Your task to perform on an android device: delete browsing data in the chrome app Image 0: 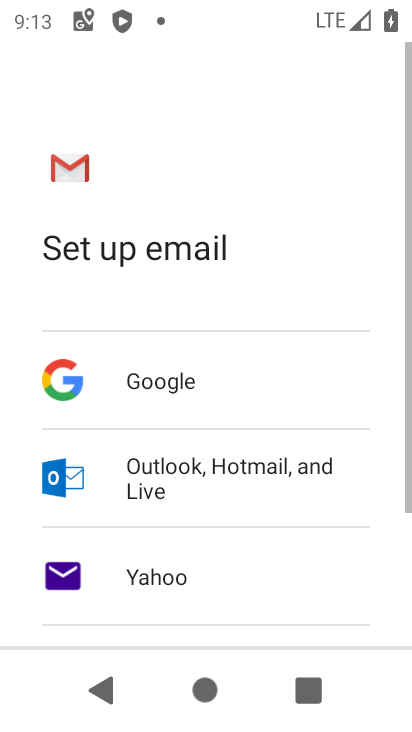
Step 0: press home button
Your task to perform on an android device: delete browsing data in the chrome app Image 1: 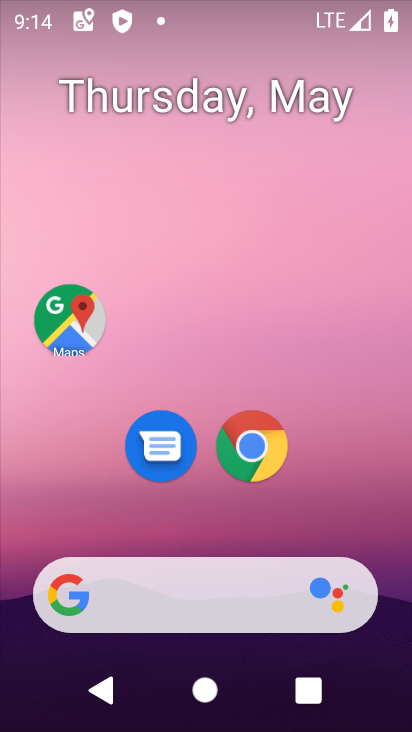
Step 1: click (257, 444)
Your task to perform on an android device: delete browsing data in the chrome app Image 2: 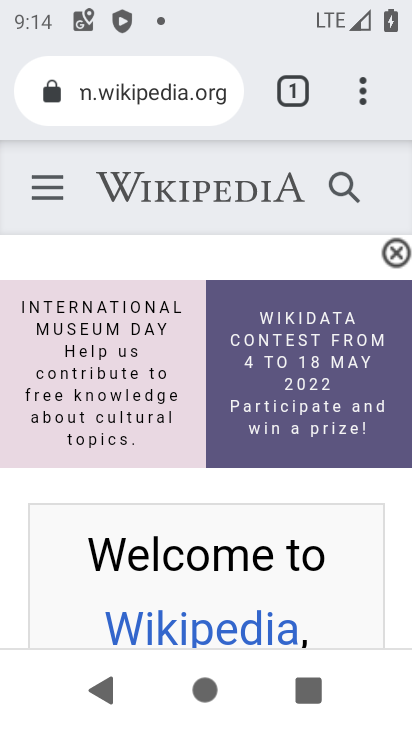
Step 2: click (362, 100)
Your task to perform on an android device: delete browsing data in the chrome app Image 3: 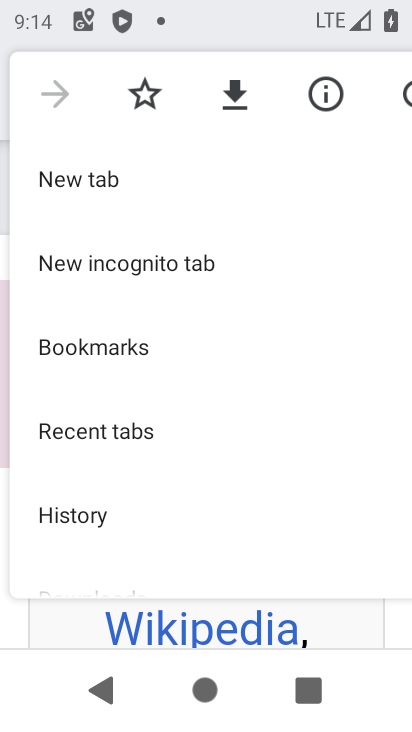
Step 3: drag from (202, 552) to (239, 257)
Your task to perform on an android device: delete browsing data in the chrome app Image 4: 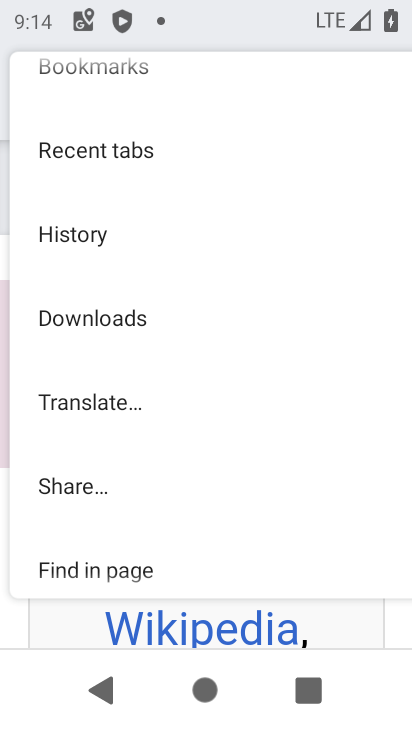
Step 4: click (84, 229)
Your task to perform on an android device: delete browsing data in the chrome app Image 5: 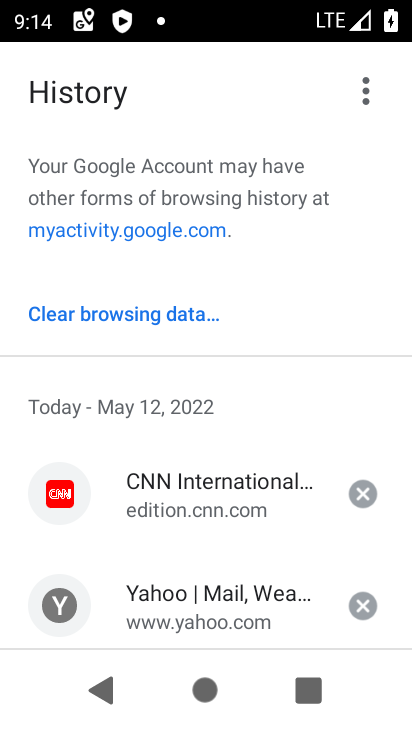
Step 5: click (123, 302)
Your task to perform on an android device: delete browsing data in the chrome app Image 6: 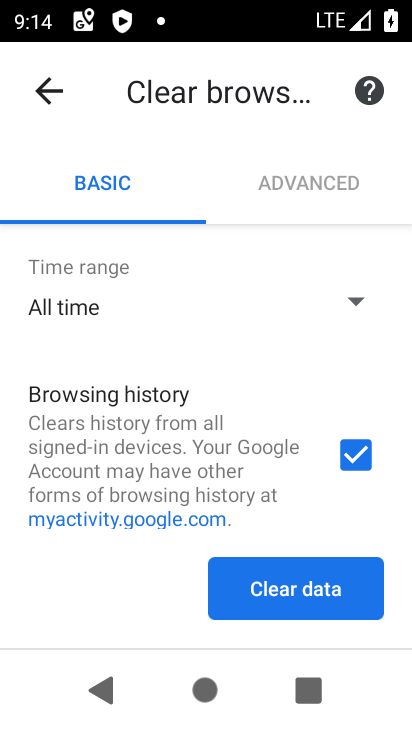
Step 6: drag from (295, 530) to (291, 190)
Your task to perform on an android device: delete browsing data in the chrome app Image 7: 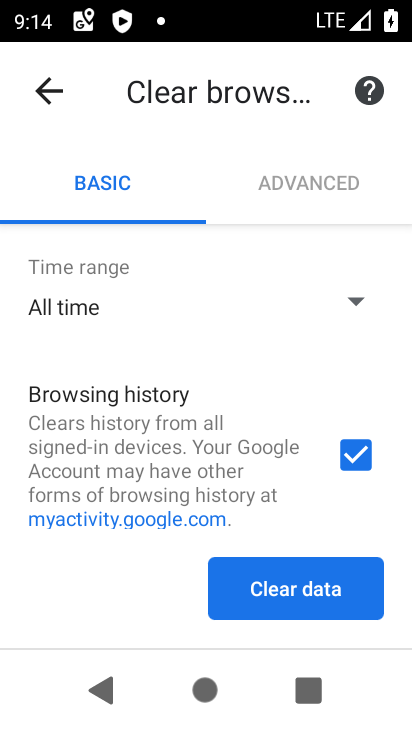
Step 7: drag from (216, 489) to (247, 108)
Your task to perform on an android device: delete browsing data in the chrome app Image 8: 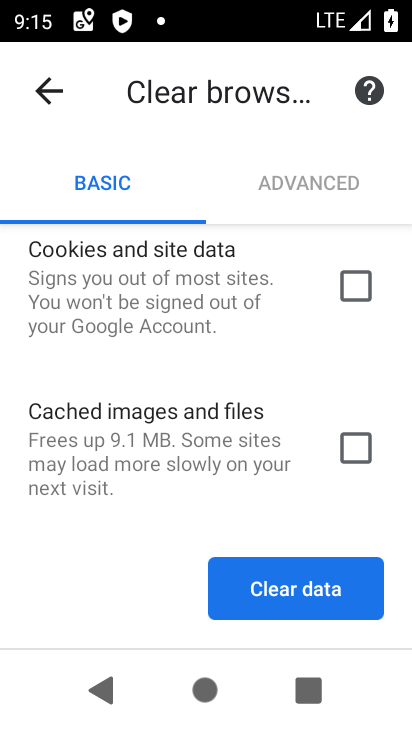
Step 8: click (288, 591)
Your task to perform on an android device: delete browsing data in the chrome app Image 9: 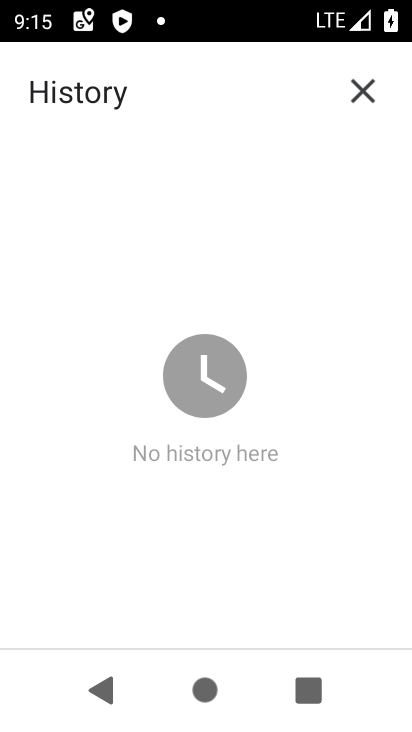
Step 9: task complete